Your task to perform on an android device: Empty the shopping cart on bestbuy.com. Image 0: 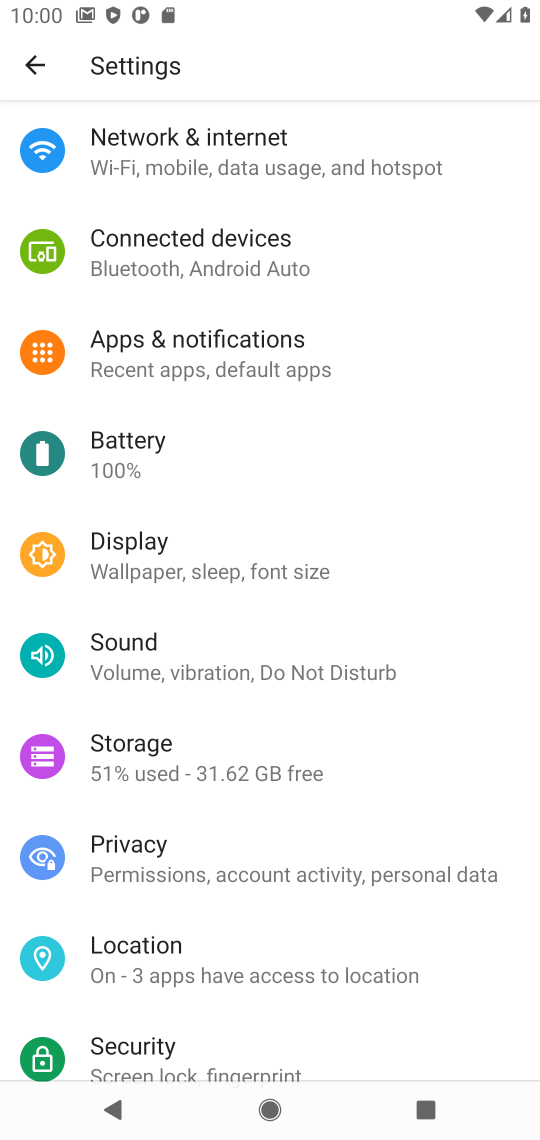
Step 0: press home button
Your task to perform on an android device: Empty the shopping cart on bestbuy.com. Image 1: 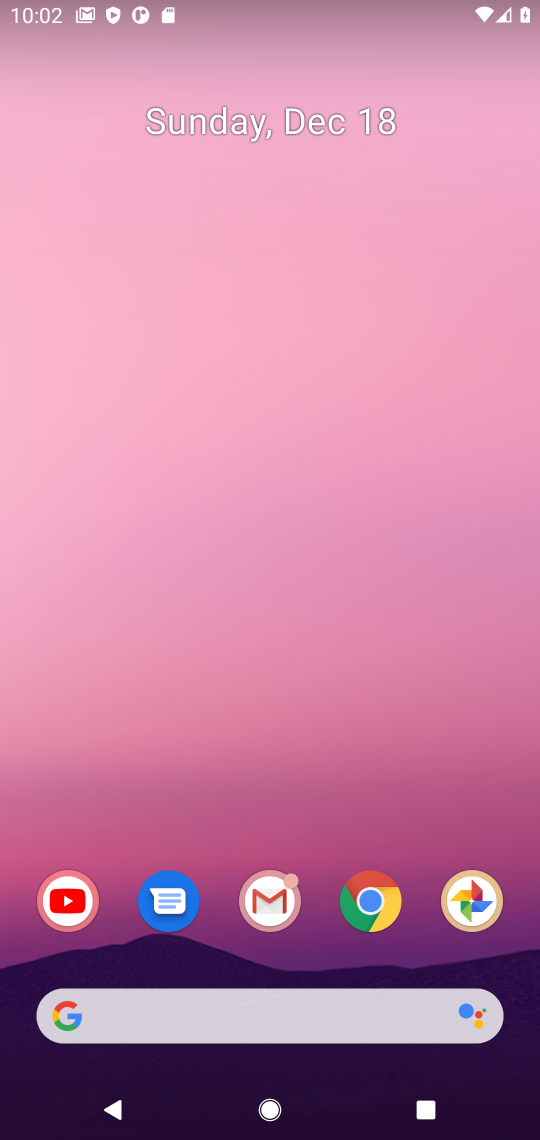
Step 1: click (359, 893)
Your task to perform on an android device: Empty the shopping cart on bestbuy.com. Image 2: 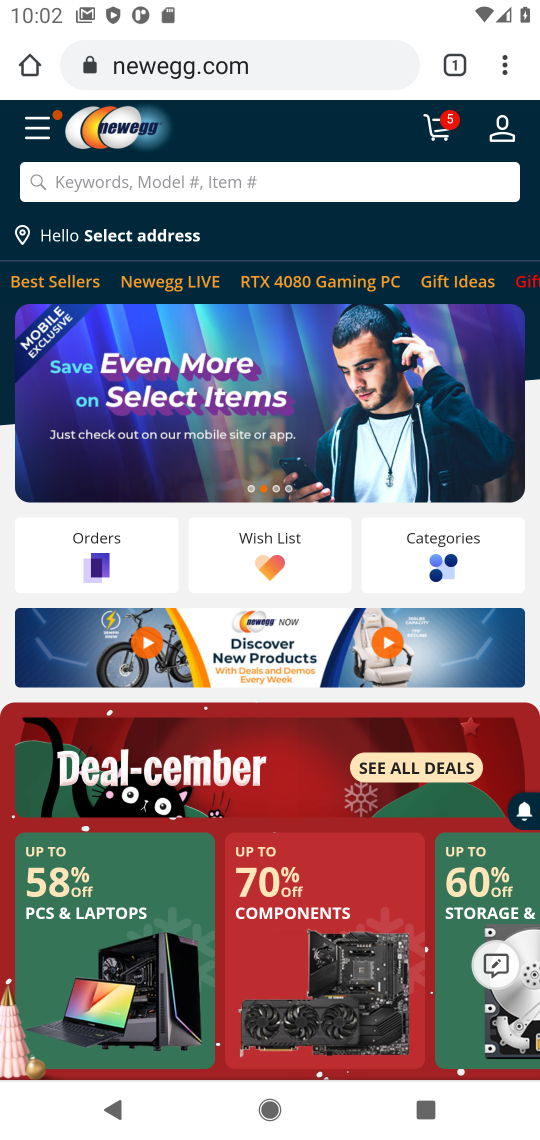
Step 2: click (344, 168)
Your task to perform on an android device: Empty the shopping cart on bestbuy.com. Image 3: 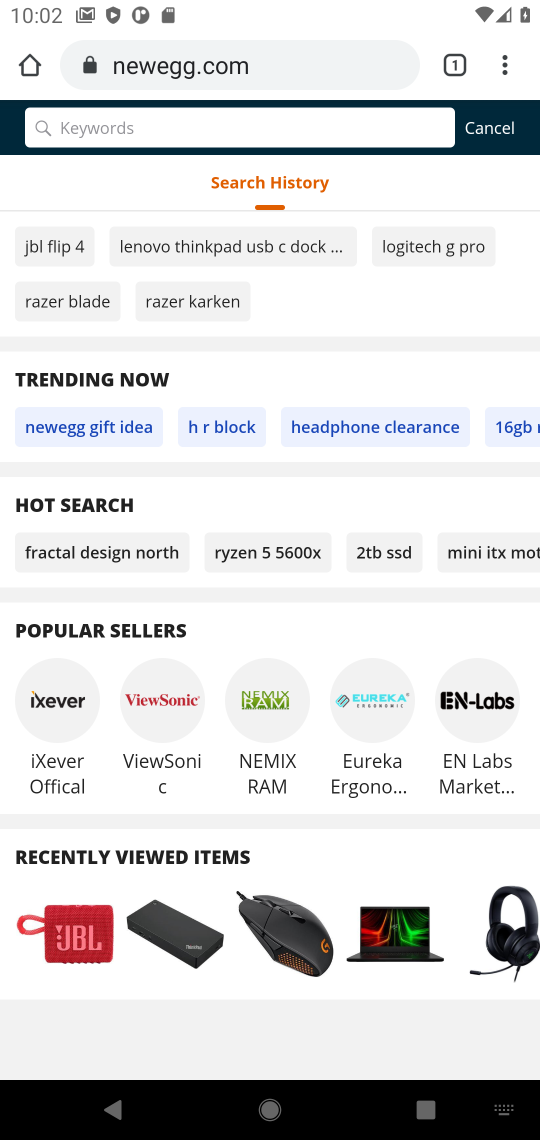
Step 3: click (496, 136)
Your task to perform on an android device: Empty the shopping cart on bestbuy.com. Image 4: 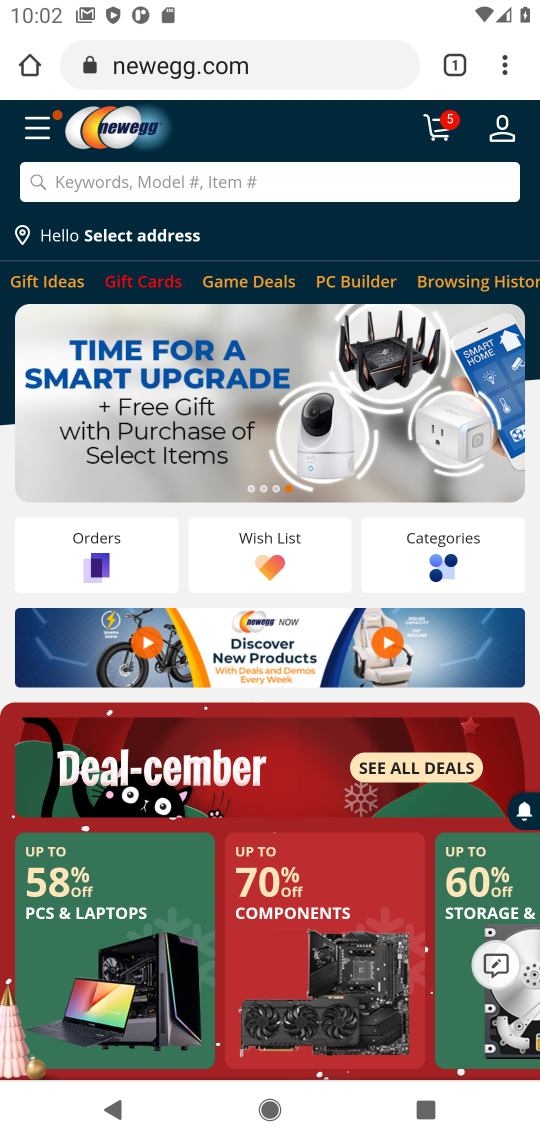
Step 4: click (287, 79)
Your task to perform on an android device: Empty the shopping cart on bestbuy.com. Image 5: 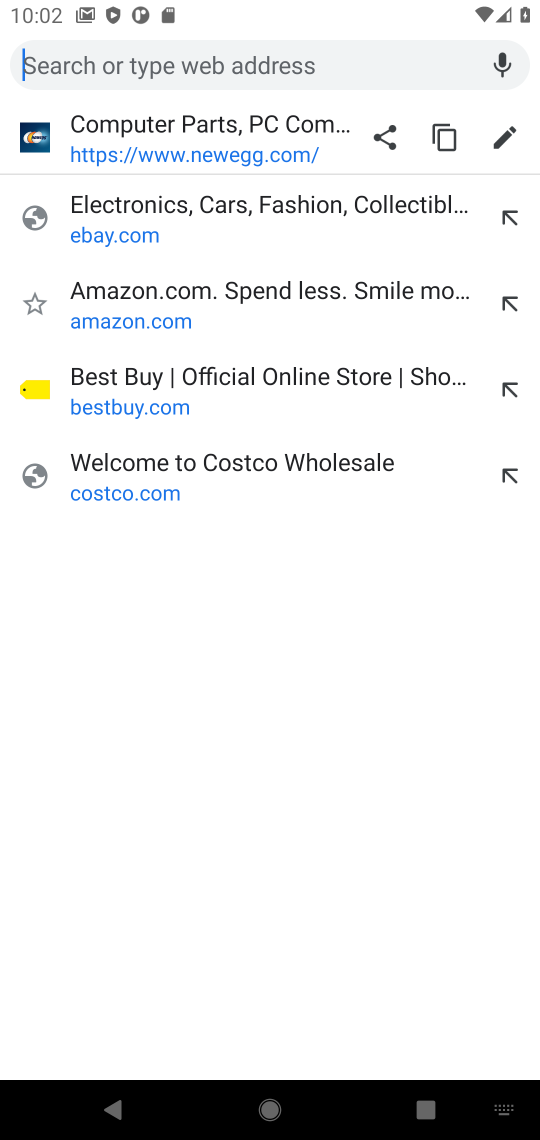
Step 5: click (157, 385)
Your task to perform on an android device: Empty the shopping cart on bestbuy.com. Image 6: 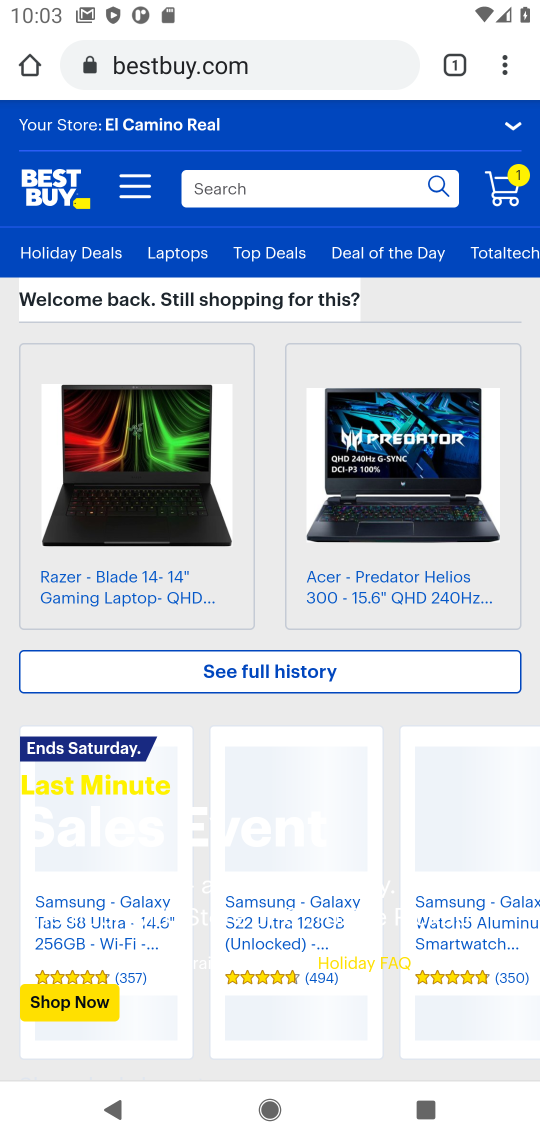
Step 6: click (504, 176)
Your task to perform on an android device: Empty the shopping cart on bestbuy.com. Image 7: 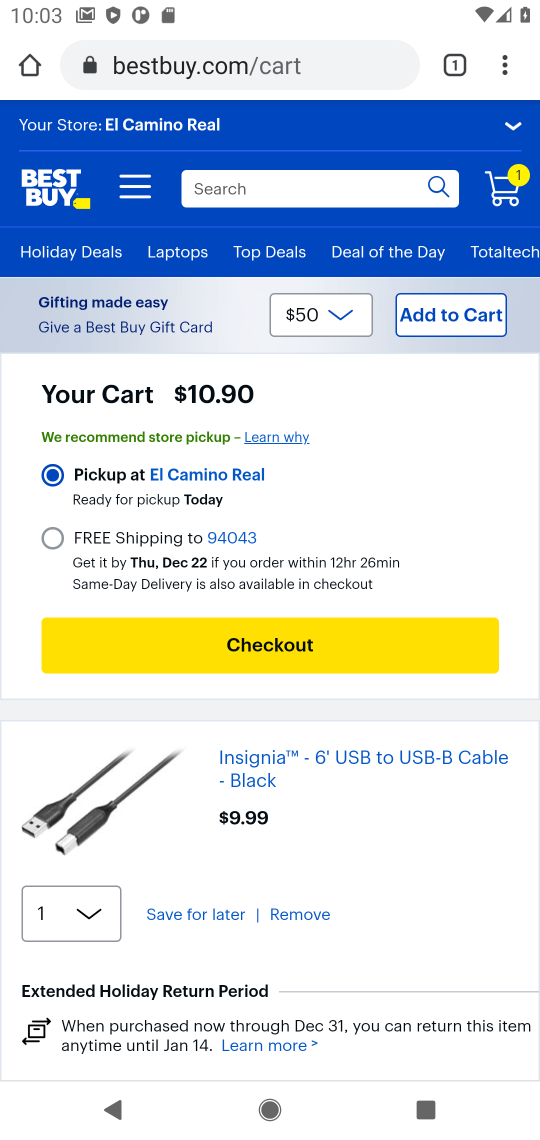
Step 7: click (324, 911)
Your task to perform on an android device: Empty the shopping cart on bestbuy.com. Image 8: 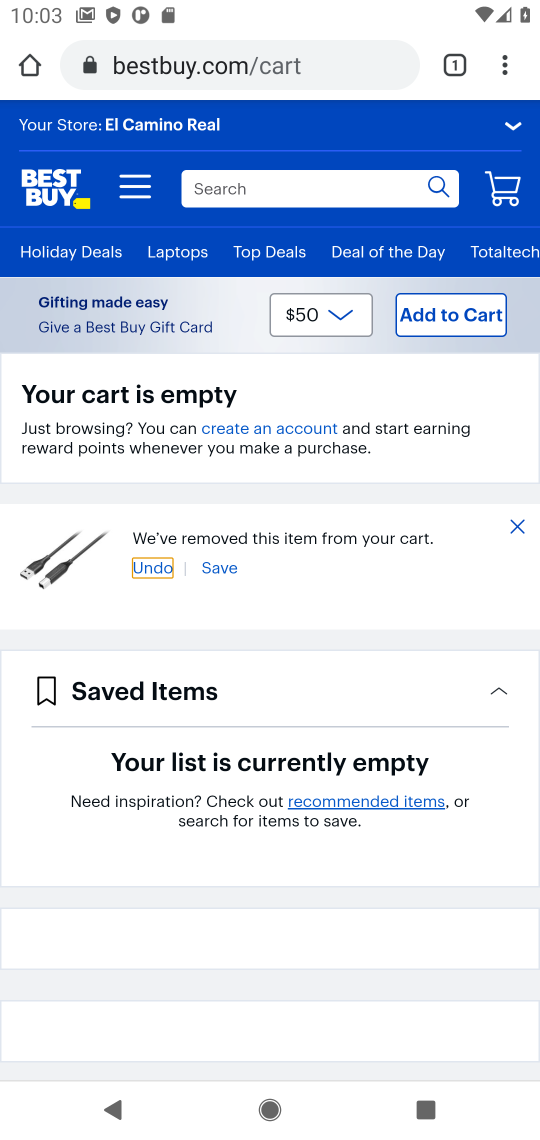
Step 8: task complete